Your task to perform on an android device: find snoozed emails in the gmail app Image 0: 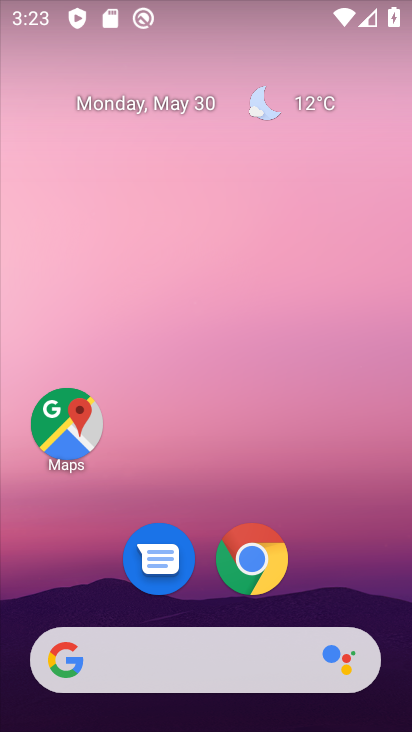
Step 0: drag from (199, 682) to (204, 129)
Your task to perform on an android device: find snoozed emails in the gmail app Image 1: 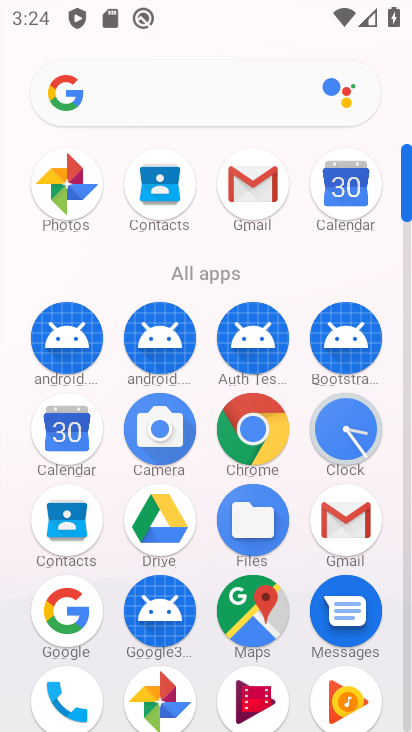
Step 1: click (344, 519)
Your task to perform on an android device: find snoozed emails in the gmail app Image 2: 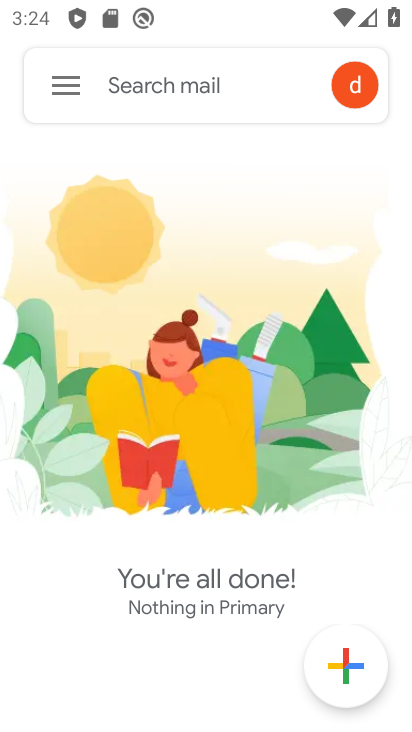
Step 2: click (66, 80)
Your task to perform on an android device: find snoozed emails in the gmail app Image 3: 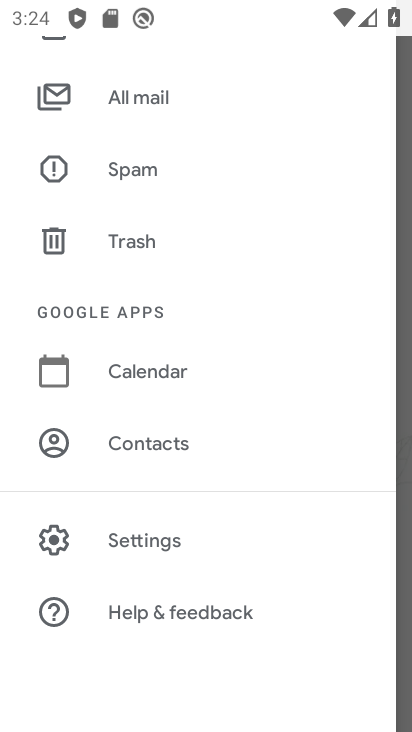
Step 3: drag from (210, 135) to (211, 428)
Your task to perform on an android device: find snoozed emails in the gmail app Image 4: 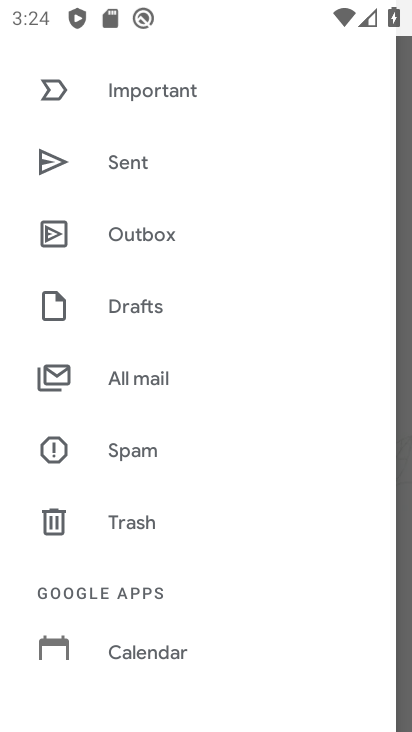
Step 4: drag from (184, 145) to (212, 514)
Your task to perform on an android device: find snoozed emails in the gmail app Image 5: 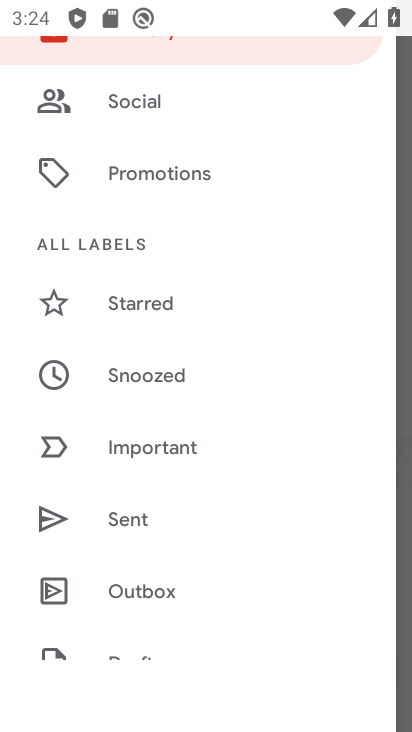
Step 5: click (138, 377)
Your task to perform on an android device: find snoozed emails in the gmail app Image 6: 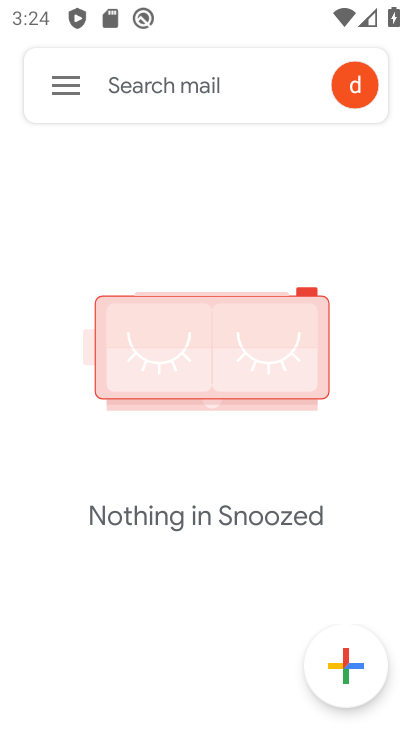
Step 6: task complete